Your task to perform on an android device: View the shopping cart on ebay.com. Search for "razer blade" on ebay.com, select the first entry, add it to the cart, then select checkout. Image 0: 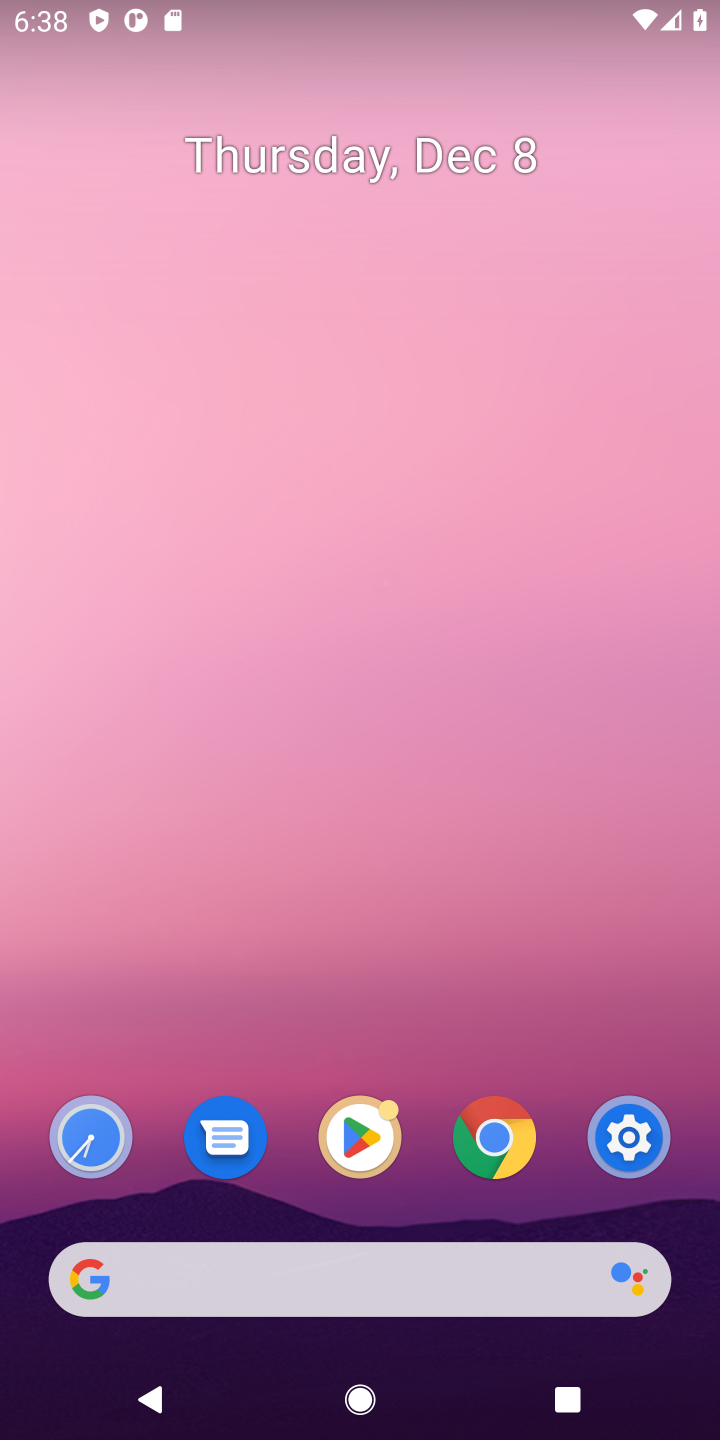
Step 0: click (497, 1161)
Your task to perform on an android device: View the shopping cart on ebay.com. Search for "razer blade" on ebay.com, select the first entry, add it to the cart, then select checkout. Image 1: 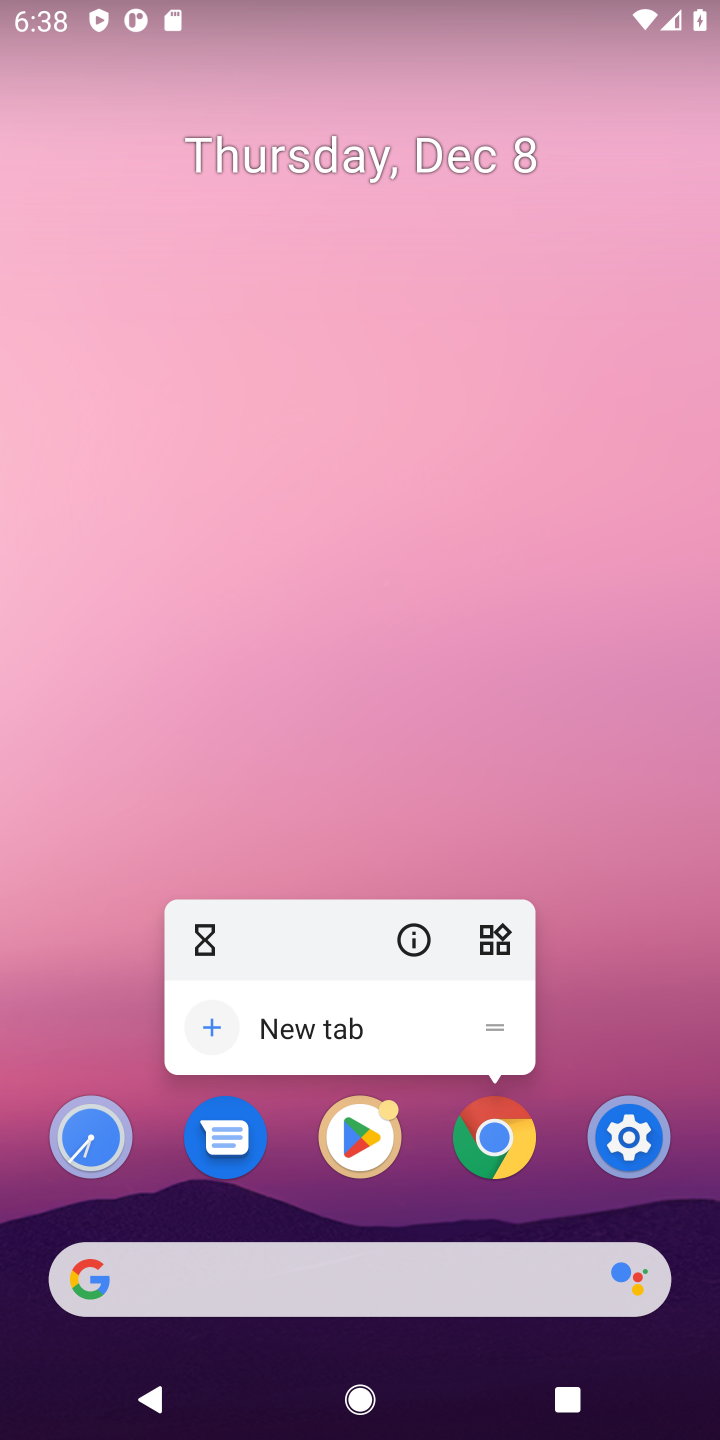
Step 1: click (502, 1148)
Your task to perform on an android device: View the shopping cart on ebay.com. Search for "razer blade" on ebay.com, select the first entry, add it to the cart, then select checkout. Image 2: 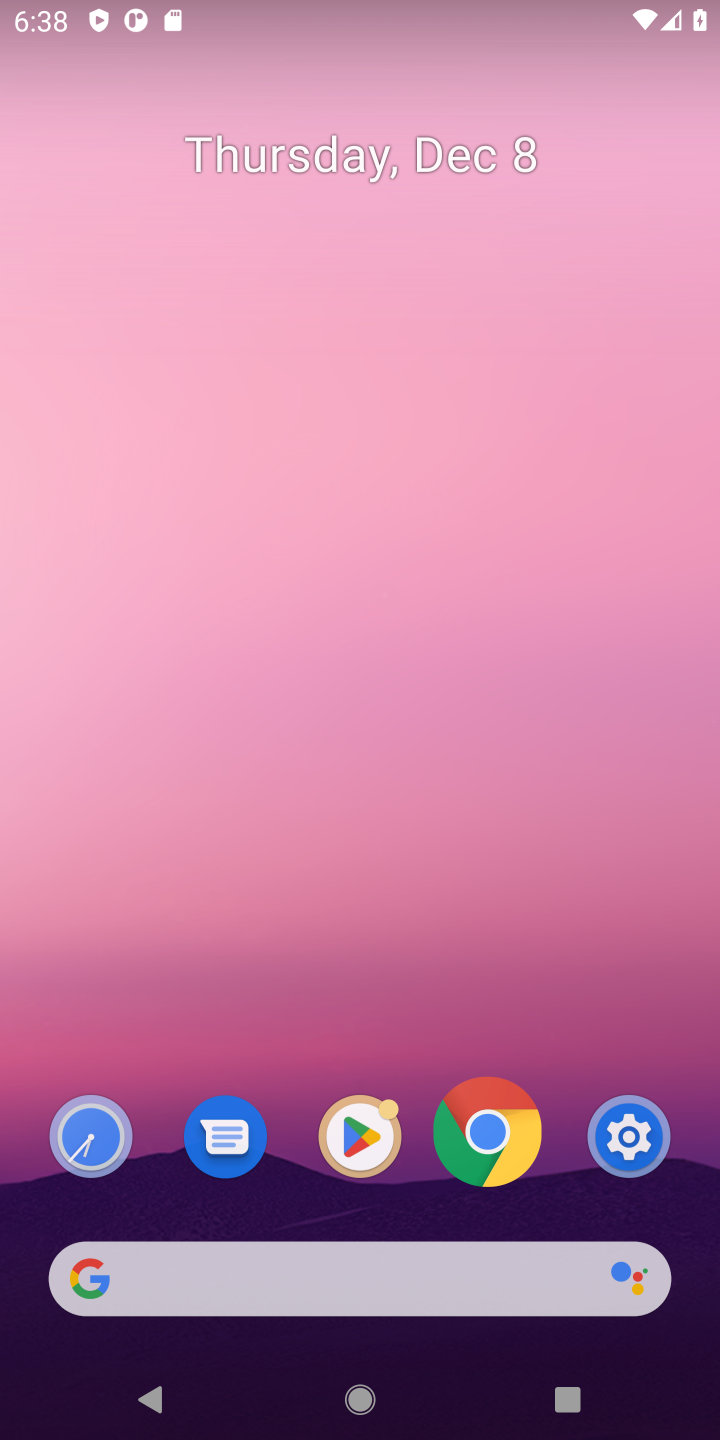
Step 2: click (502, 1148)
Your task to perform on an android device: View the shopping cart on ebay.com. Search for "razer blade" on ebay.com, select the first entry, add it to the cart, then select checkout. Image 3: 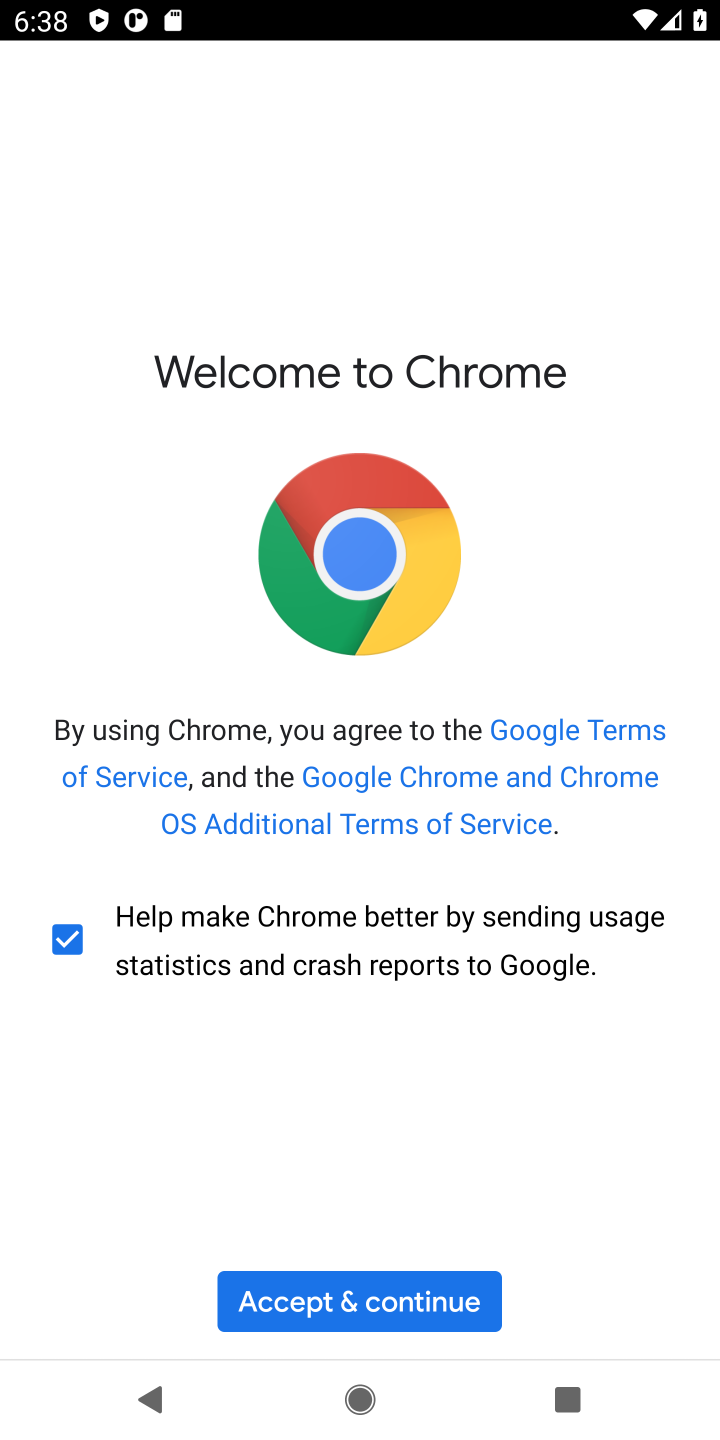
Step 3: click (382, 1317)
Your task to perform on an android device: View the shopping cart on ebay.com. Search for "razer blade" on ebay.com, select the first entry, add it to the cart, then select checkout. Image 4: 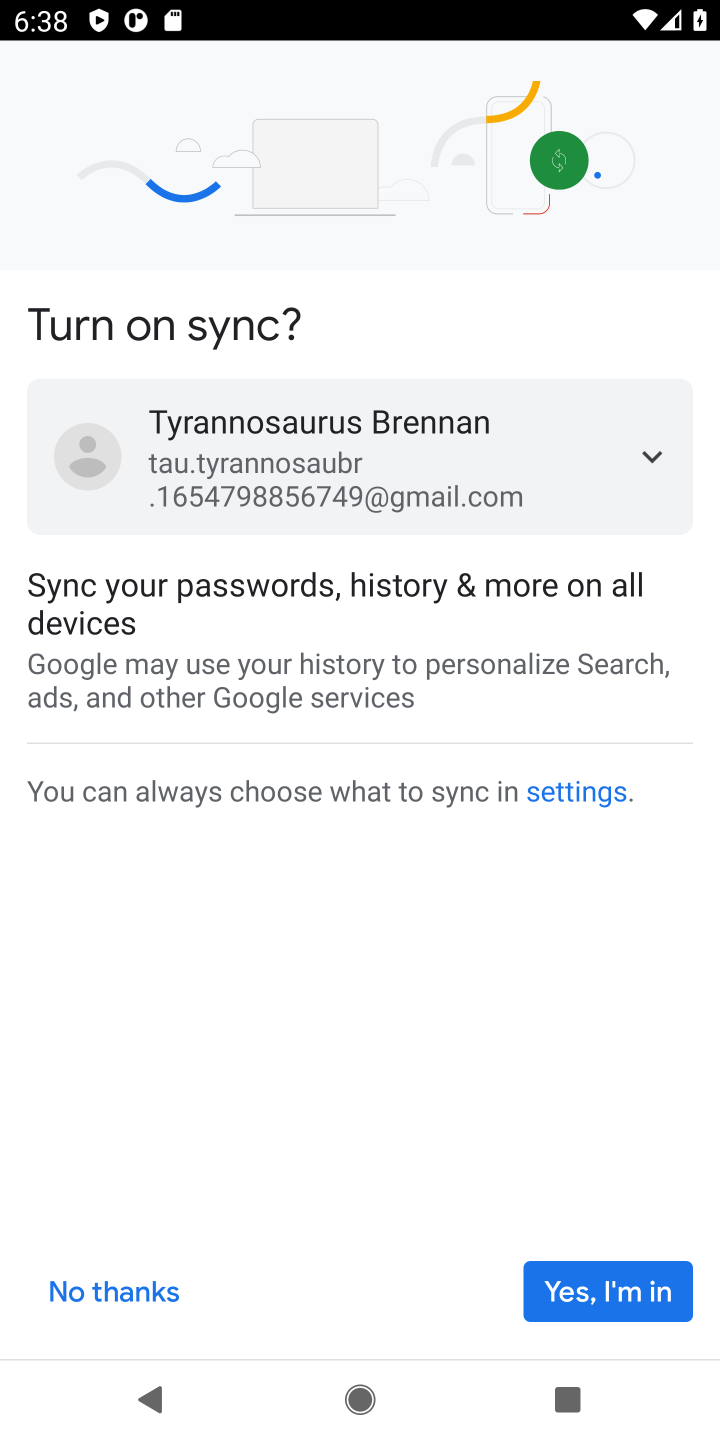
Step 4: click (568, 1286)
Your task to perform on an android device: View the shopping cart on ebay.com. Search for "razer blade" on ebay.com, select the first entry, add it to the cart, then select checkout. Image 5: 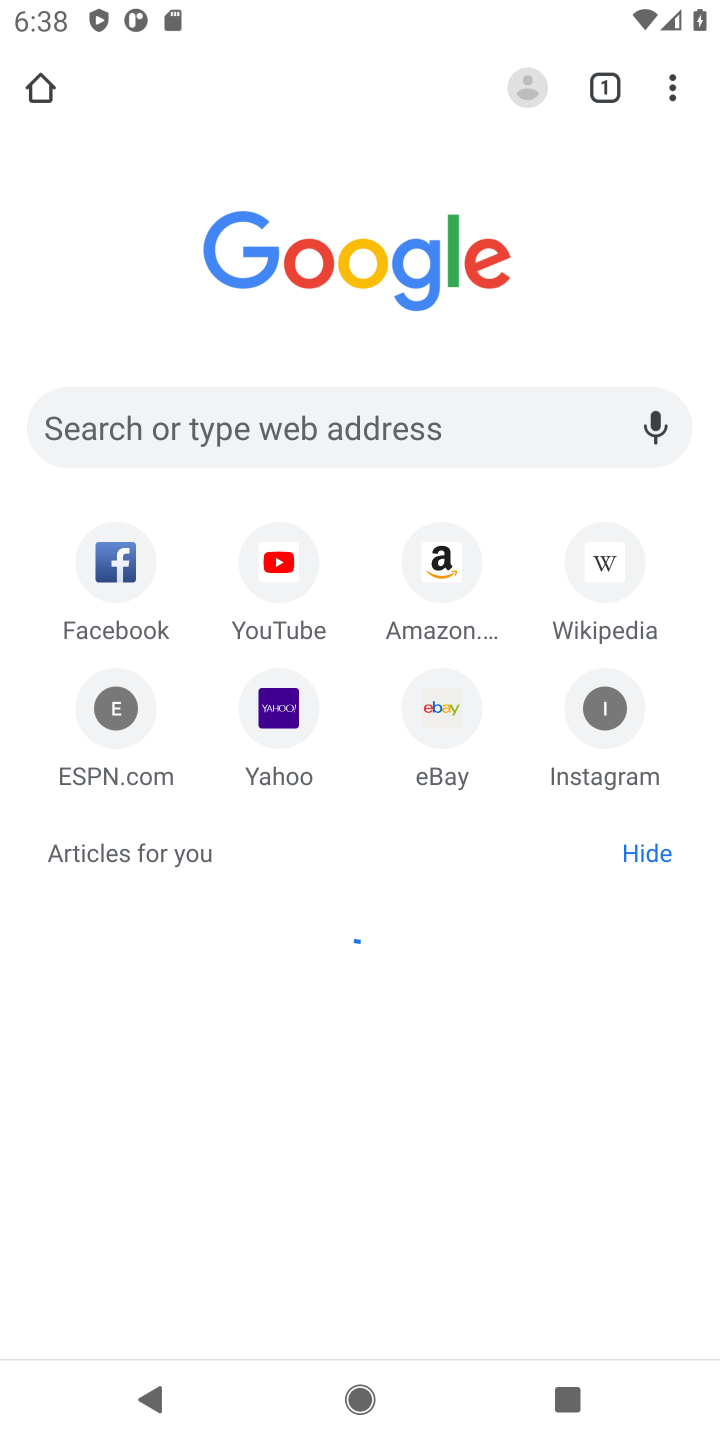
Step 5: click (447, 719)
Your task to perform on an android device: View the shopping cart on ebay.com. Search for "razer blade" on ebay.com, select the first entry, add it to the cart, then select checkout. Image 6: 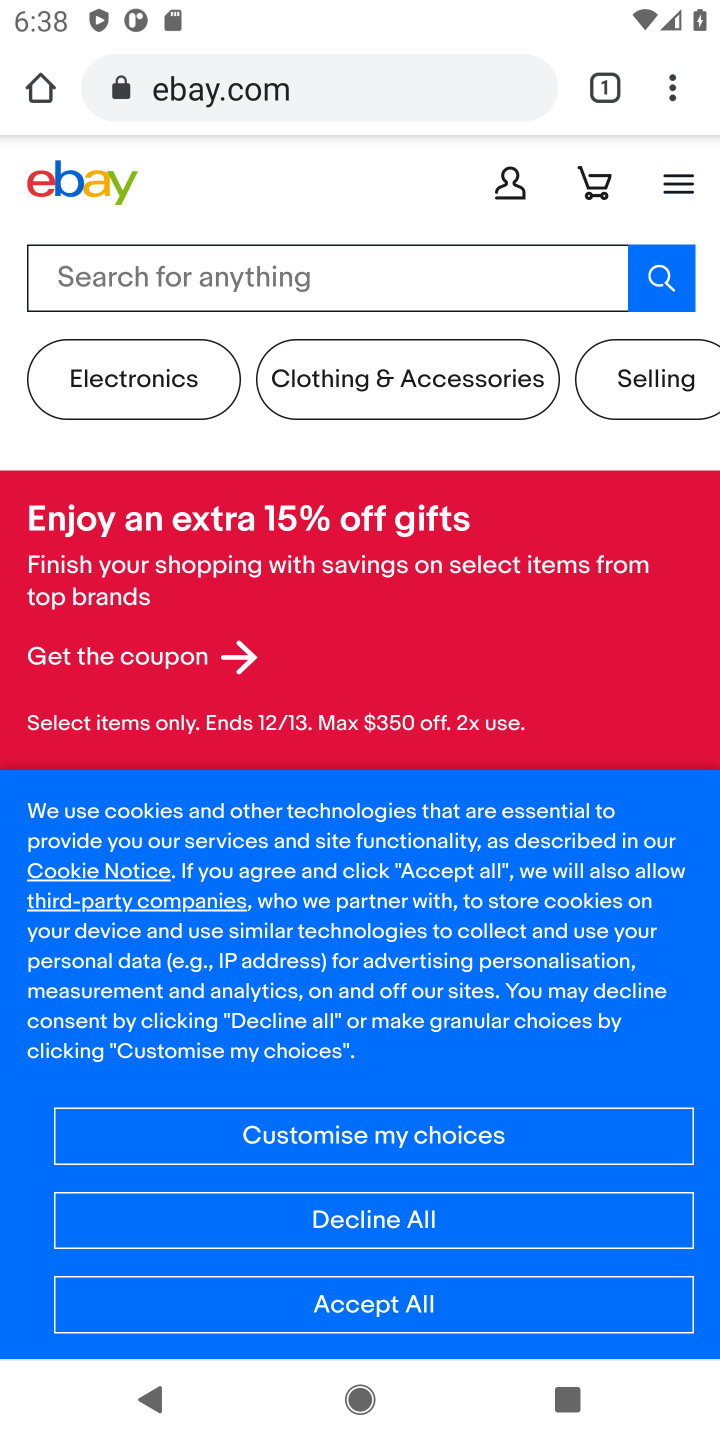
Step 6: click (374, 1230)
Your task to perform on an android device: View the shopping cart on ebay.com. Search for "razer blade" on ebay.com, select the first entry, add it to the cart, then select checkout. Image 7: 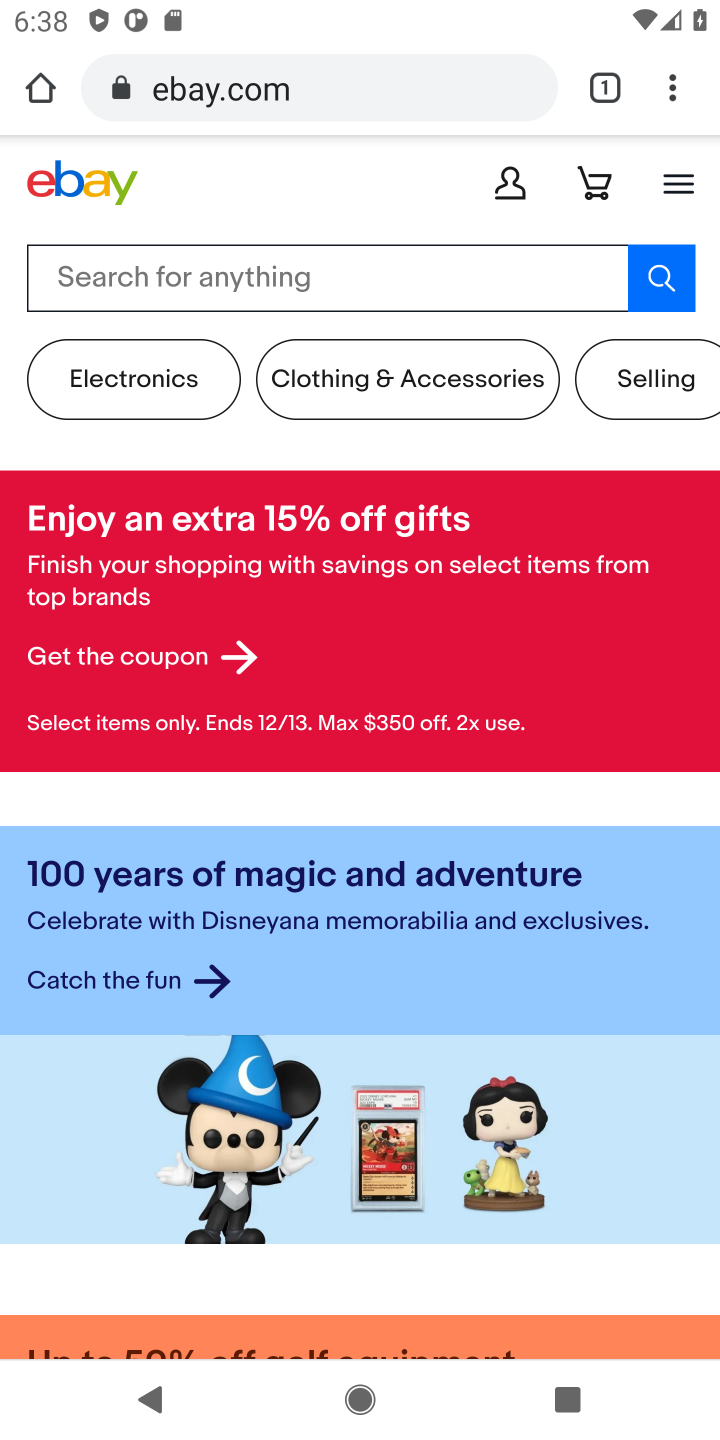
Step 7: click (187, 269)
Your task to perform on an android device: View the shopping cart on ebay.com. Search for "razer blade" on ebay.com, select the first entry, add it to the cart, then select checkout. Image 8: 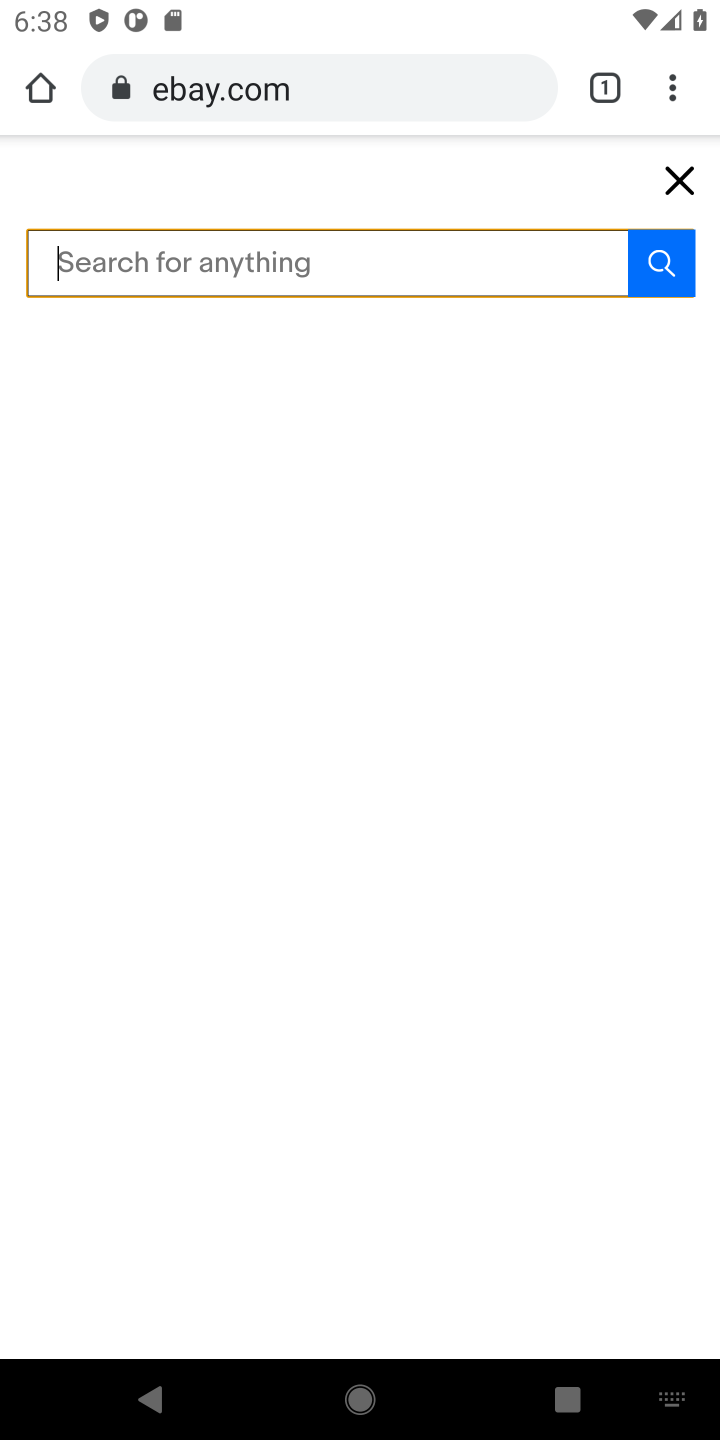
Step 8: type "razer blade"
Your task to perform on an android device: View the shopping cart on ebay.com. Search for "razer blade" on ebay.com, select the first entry, add it to the cart, then select checkout. Image 9: 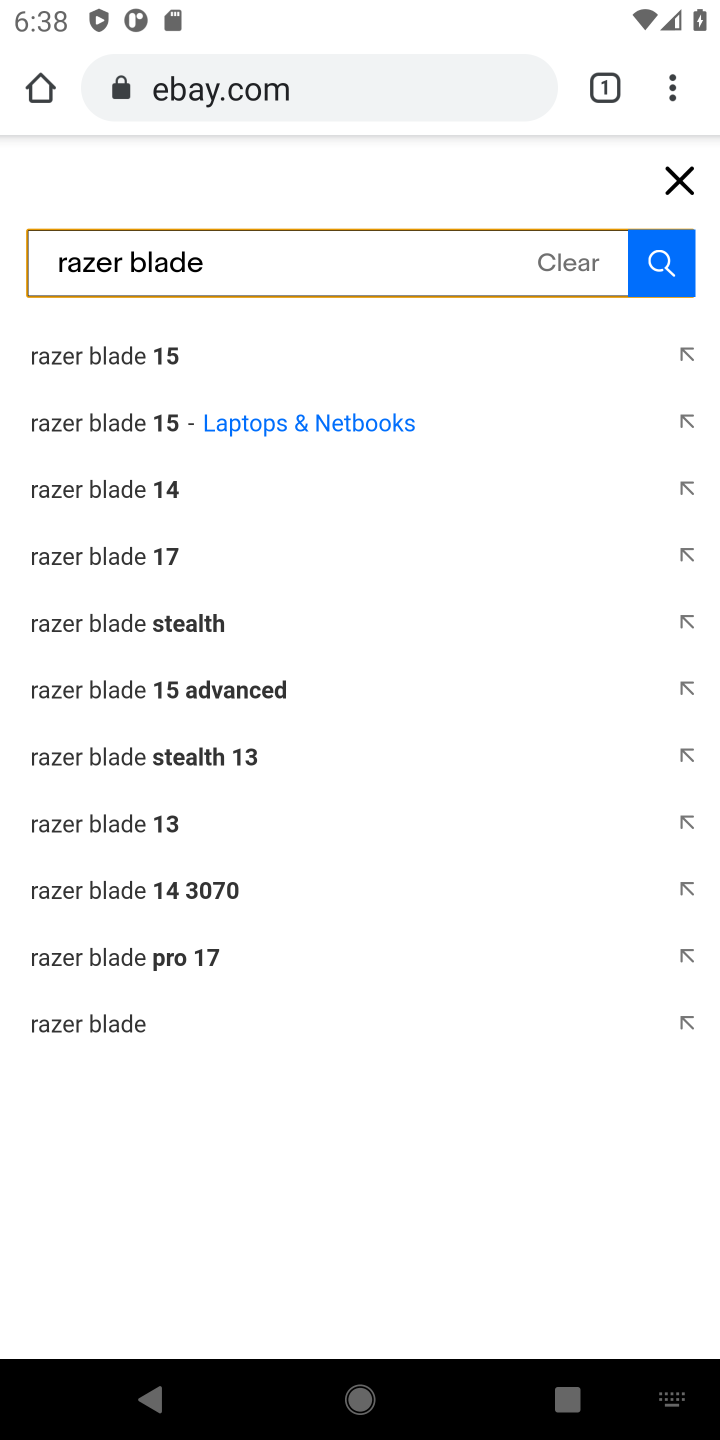
Step 9: click (121, 419)
Your task to perform on an android device: View the shopping cart on ebay.com. Search for "razer blade" on ebay.com, select the first entry, add it to the cart, then select checkout. Image 10: 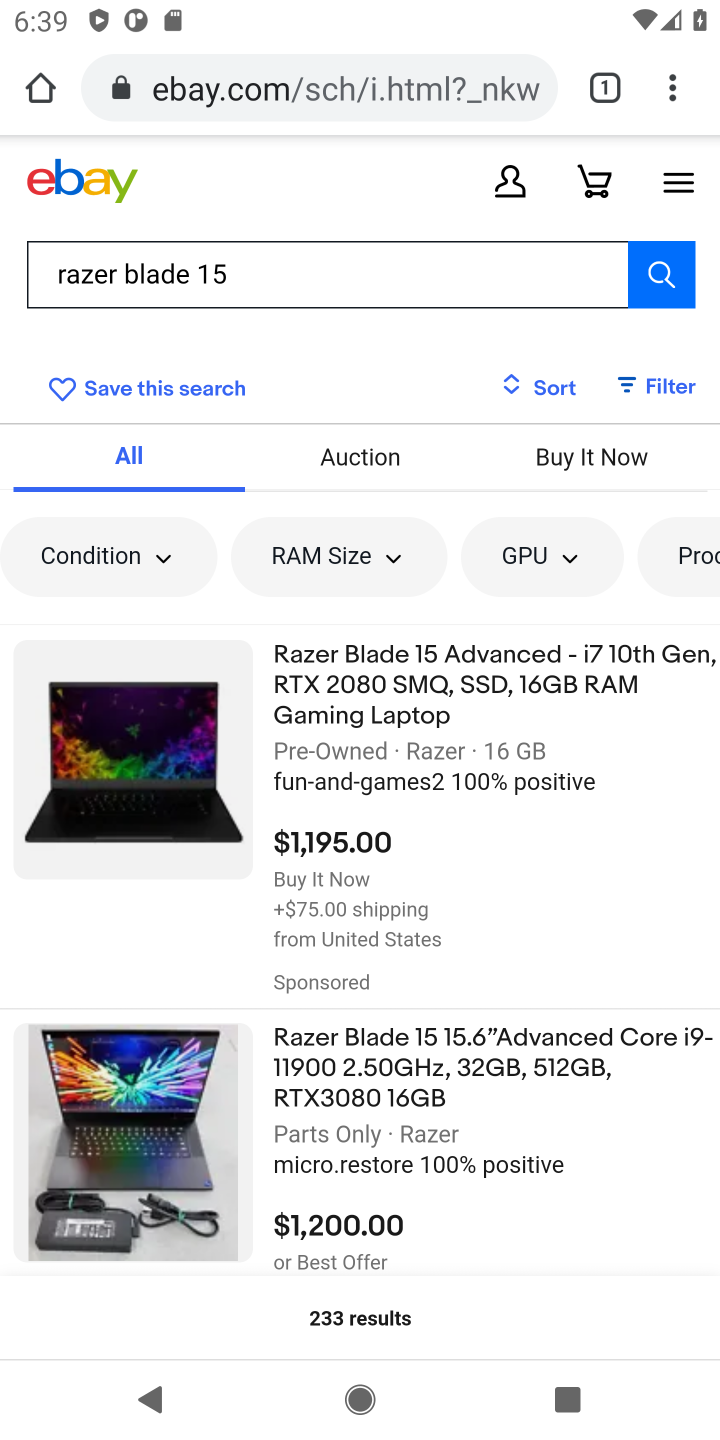
Step 10: click (452, 702)
Your task to perform on an android device: View the shopping cart on ebay.com. Search for "razer blade" on ebay.com, select the first entry, add it to the cart, then select checkout. Image 11: 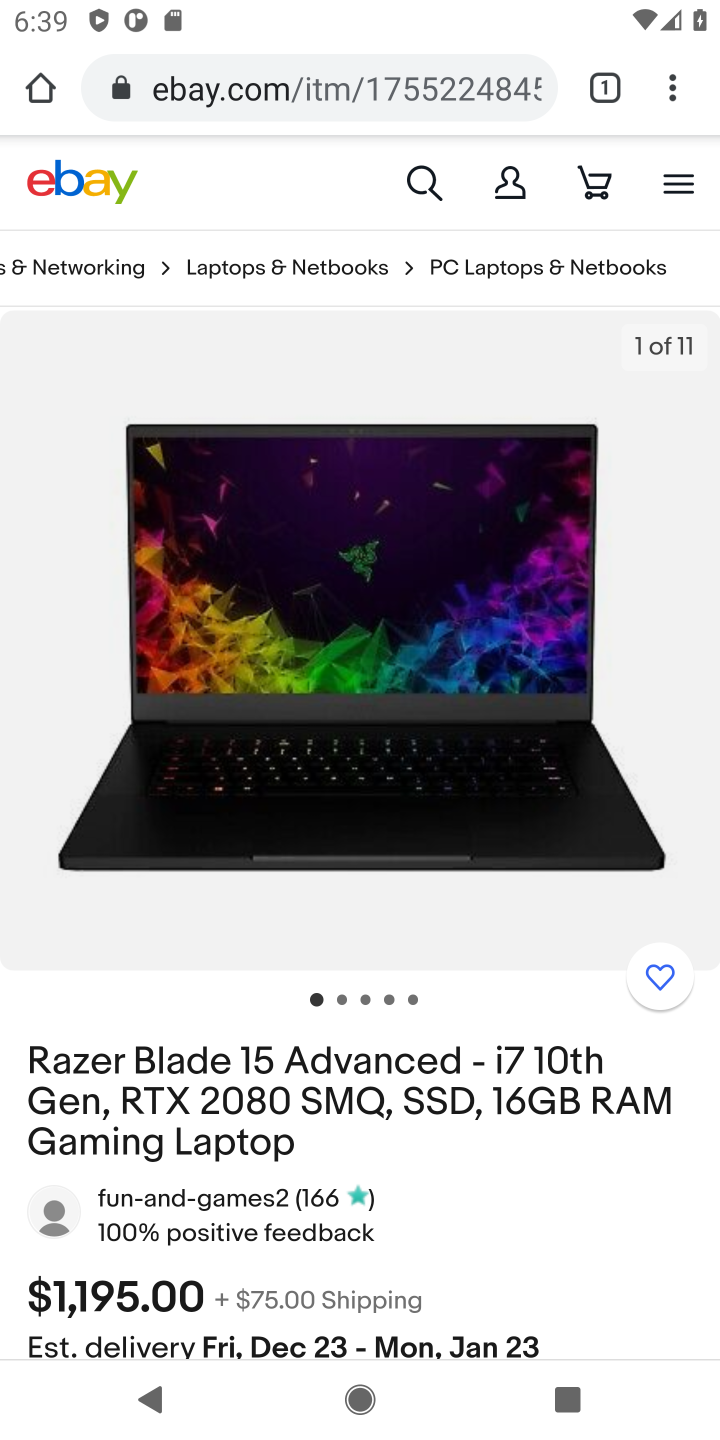
Step 11: drag from (513, 1176) to (529, 293)
Your task to perform on an android device: View the shopping cart on ebay.com. Search for "razer blade" on ebay.com, select the first entry, add it to the cart, then select checkout. Image 12: 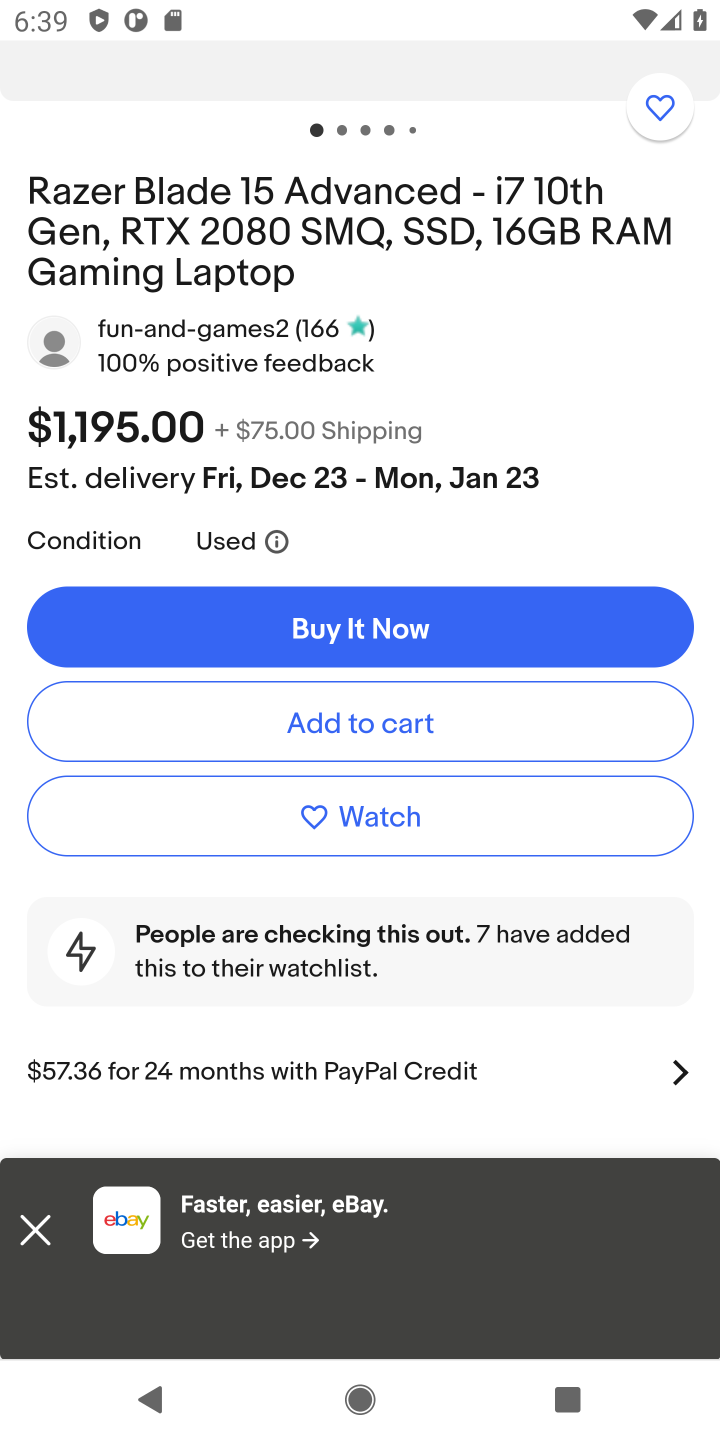
Step 12: click (463, 701)
Your task to perform on an android device: View the shopping cart on ebay.com. Search for "razer blade" on ebay.com, select the first entry, add it to the cart, then select checkout. Image 13: 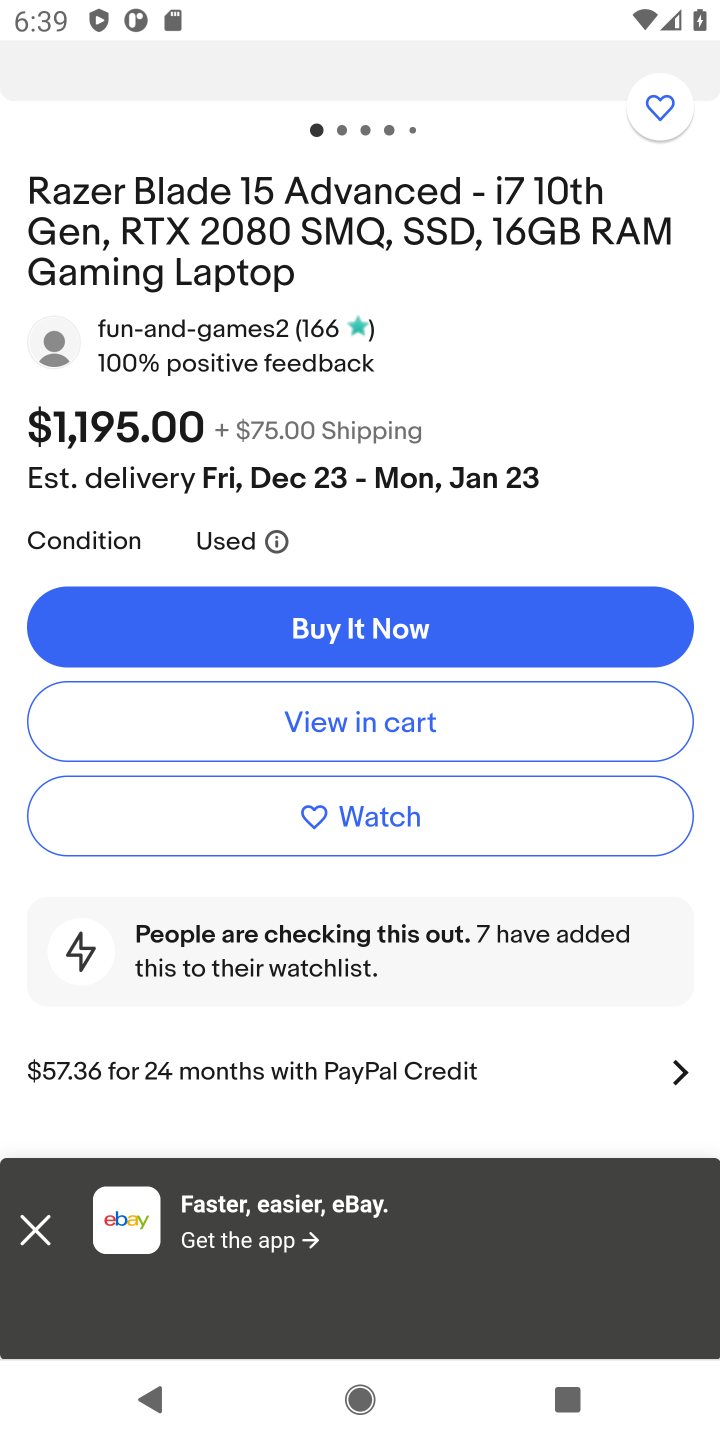
Step 13: task complete